Your task to perform on an android device: turn off picture-in-picture Image 0: 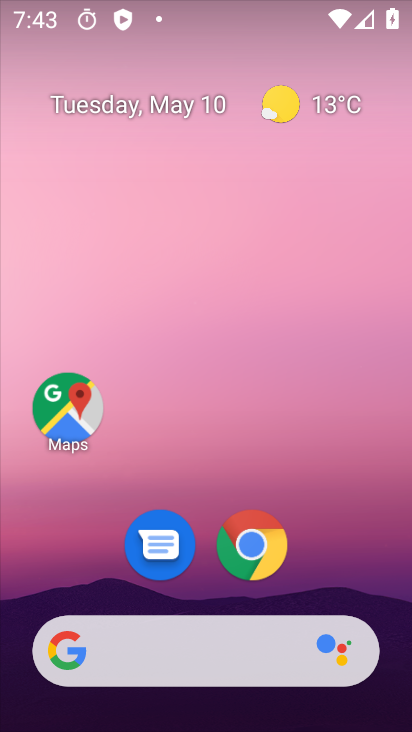
Step 0: click (262, 531)
Your task to perform on an android device: turn off picture-in-picture Image 1: 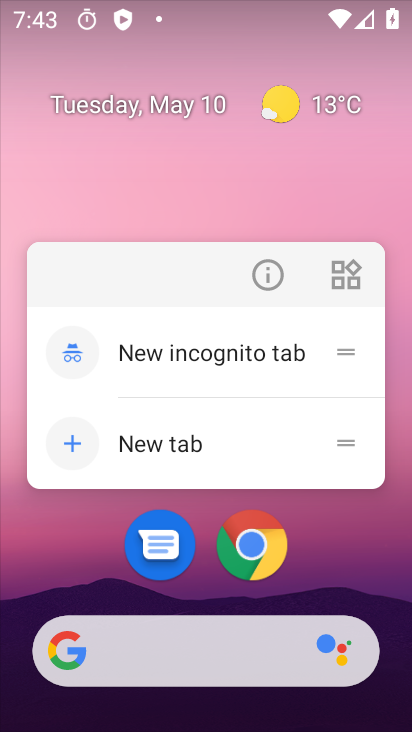
Step 1: click (268, 269)
Your task to perform on an android device: turn off picture-in-picture Image 2: 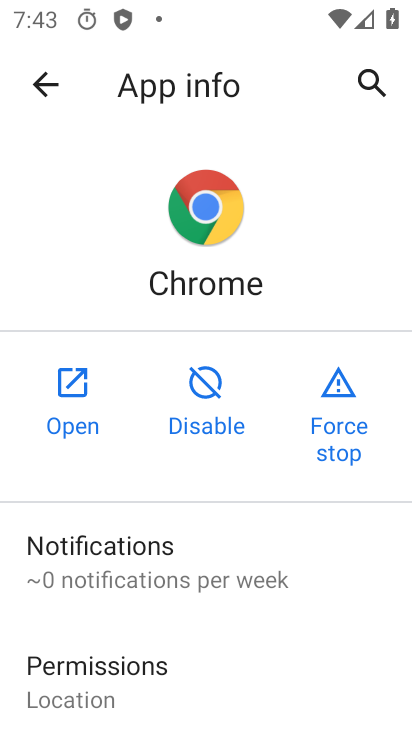
Step 2: drag from (220, 663) to (243, 237)
Your task to perform on an android device: turn off picture-in-picture Image 3: 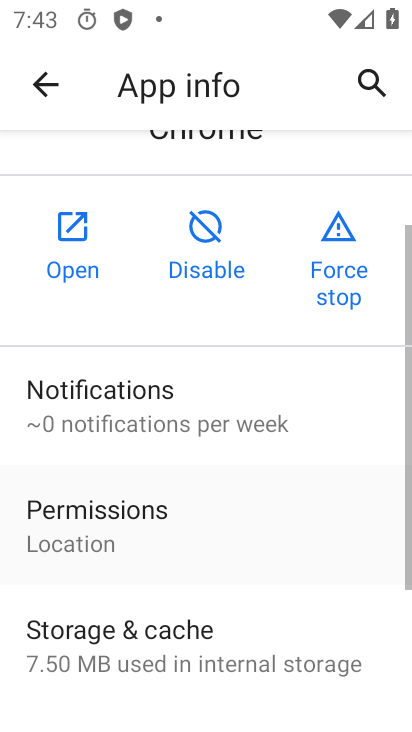
Step 3: click (256, 30)
Your task to perform on an android device: turn off picture-in-picture Image 4: 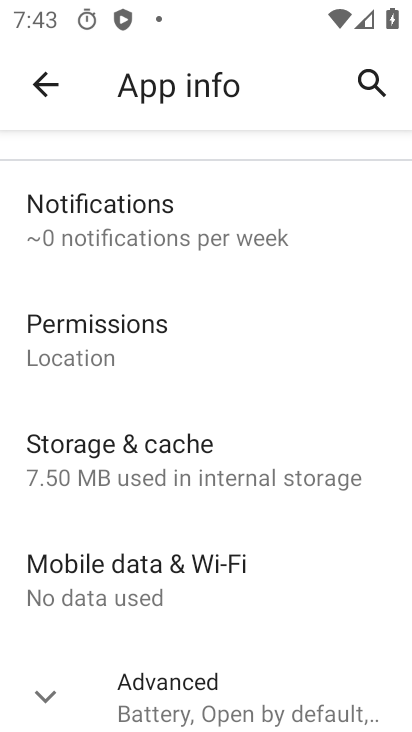
Step 4: click (38, 685)
Your task to perform on an android device: turn off picture-in-picture Image 5: 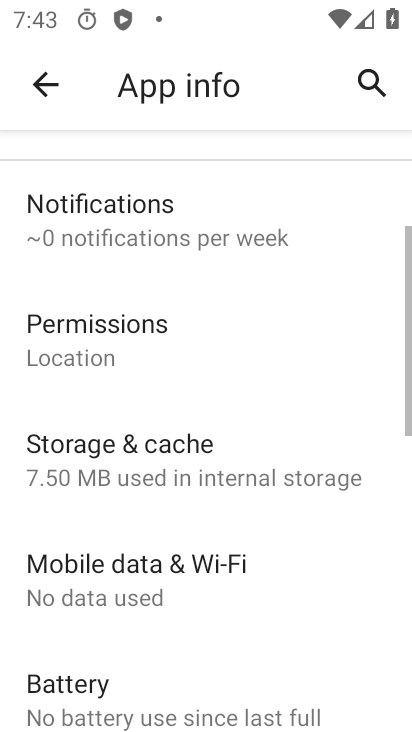
Step 5: drag from (160, 626) to (219, 7)
Your task to perform on an android device: turn off picture-in-picture Image 6: 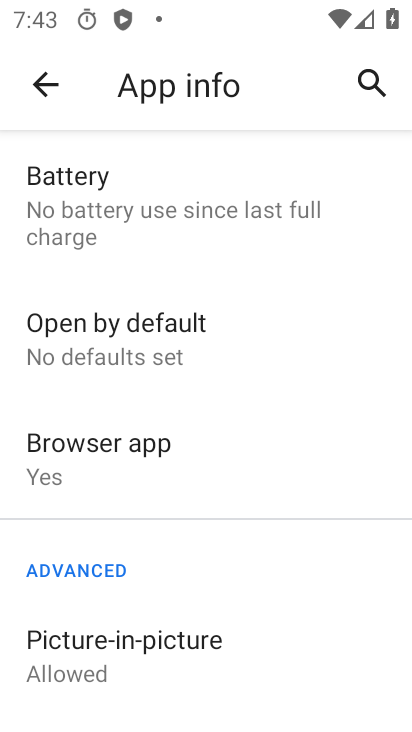
Step 6: click (145, 657)
Your task to perform on an android device: turn off picture-in-picture Image 7: 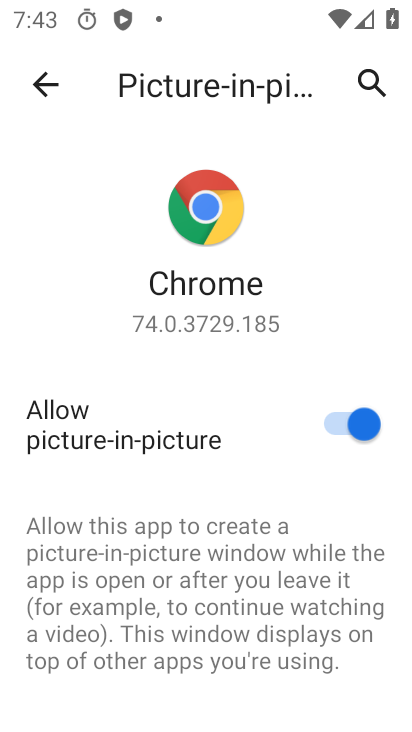
Step 7: click (342, 422)
Your task to perform on an android device: turn off picture-in-picture Image 8: 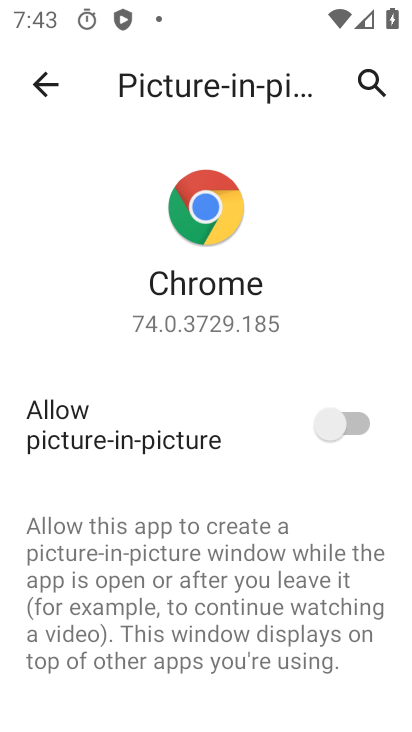
Step 8: task complete